Your task to perform on an android device: turn off translation in the chrome app Image 0: 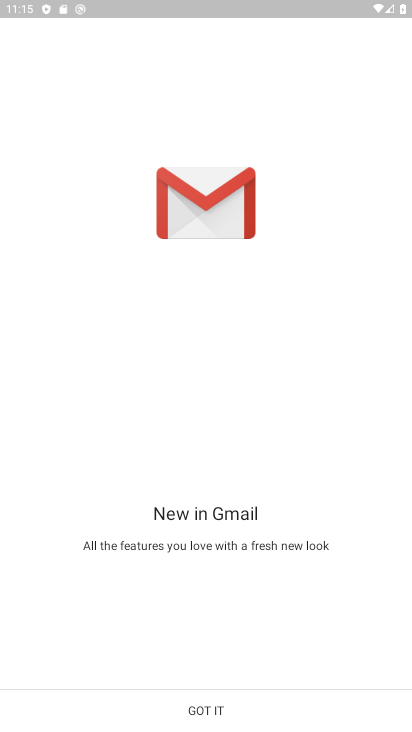
Step 0: press home button
Your task to perform on an android device: turn off translation in the chrome app Image 1: 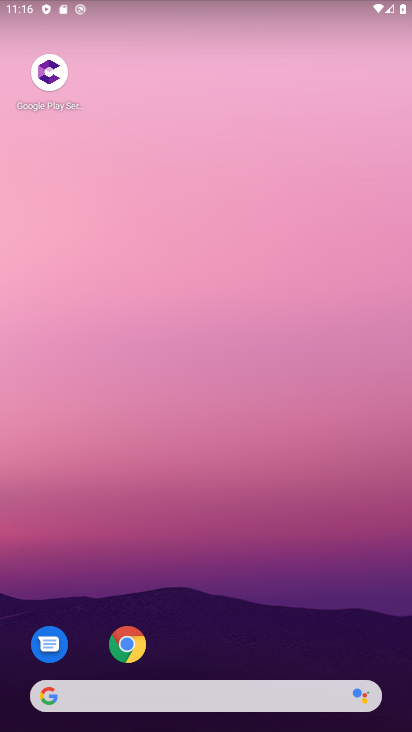
Step 1: drag from (212, 663) to (246, 204)
Your task to perform on an android device: turn off translation in the chrome app Image 2: 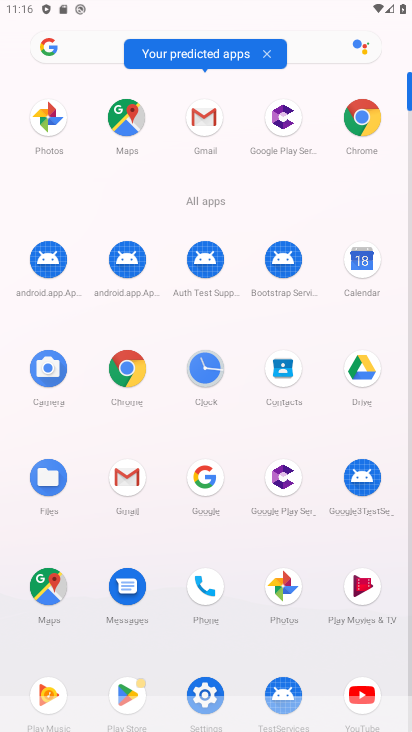
Step 2: click (130, 378)
Your task to perform on an android device: turn off translation in the chrome app Image 3: 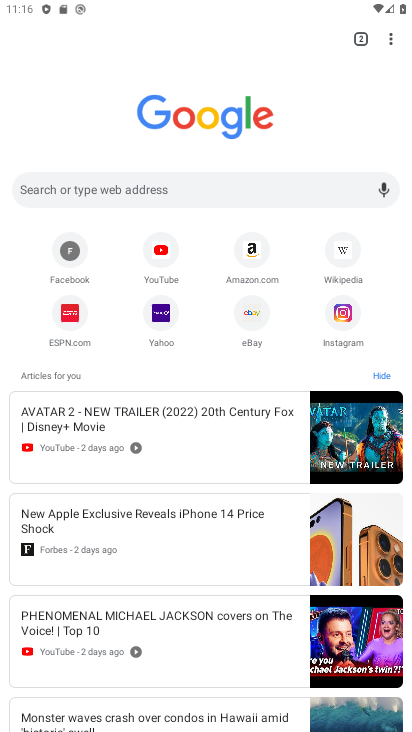
Step 3: drag from (392, 39) to (303, 314)
Your task to perform on an android device: turn off translation in the chrome app Image 4: 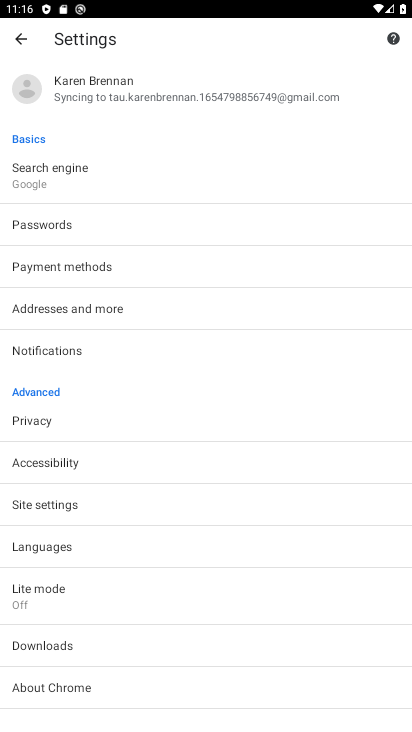
Step 4: click (114, 545)
Your task to perform on an android device: turn off translation in the chrome app Image 5: 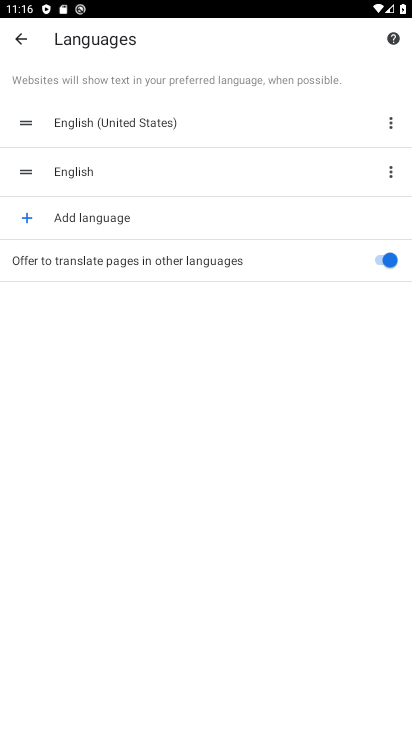
Step 5: click (380, 257)
Your task to perform on an android device: turn off translation in the chrome app Image 6: 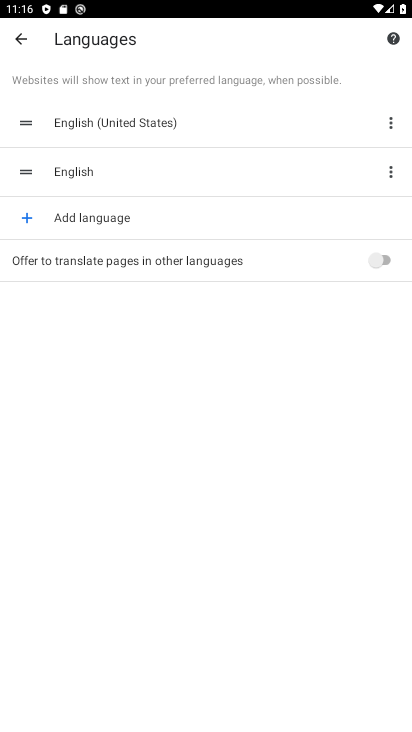
Step 6: task complete